Your task to perform on an android device: Search for Italian restaurants on Maps Image 0: 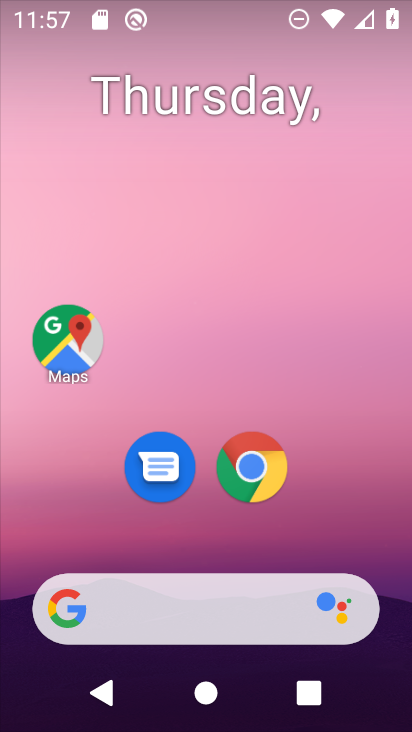
Step 0: click (69, 342)
Your task to perform on an android device: Search for Italian restaurants on Maps Image 1: 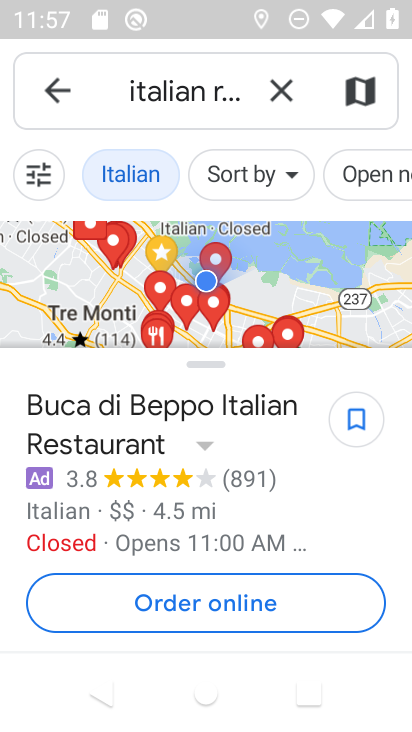
Step 1: task complete